Your task to perform on an android device: turn off wifi Image 0: 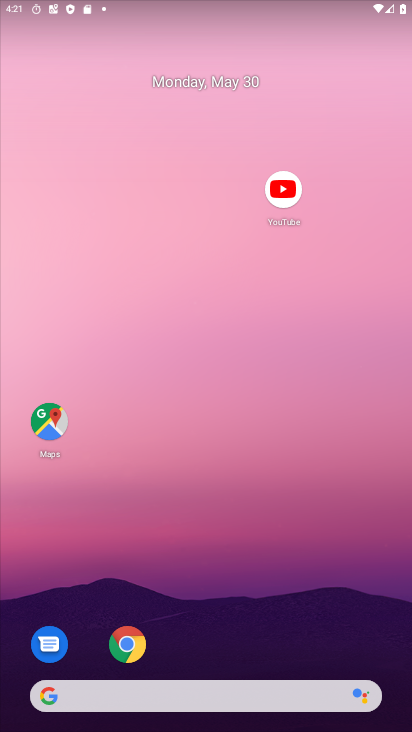
Step 0: drag from (280, 10) to (258, 623)
Your task to perform on an android device: turn off wifi Image 1: 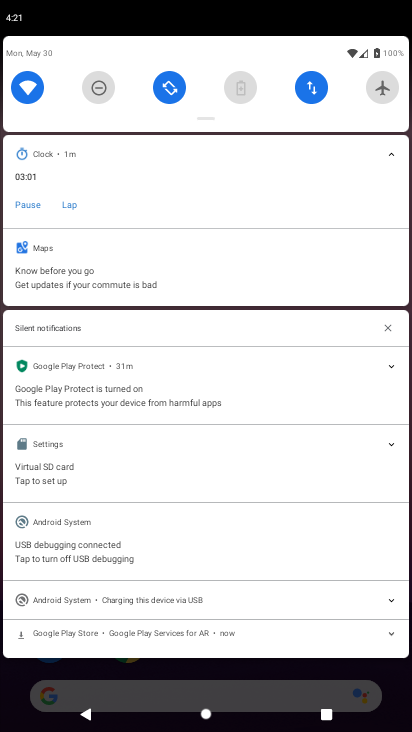
Step 1: click (36, 91)
Your task to perform on an android device: turn off wifi Image 2: 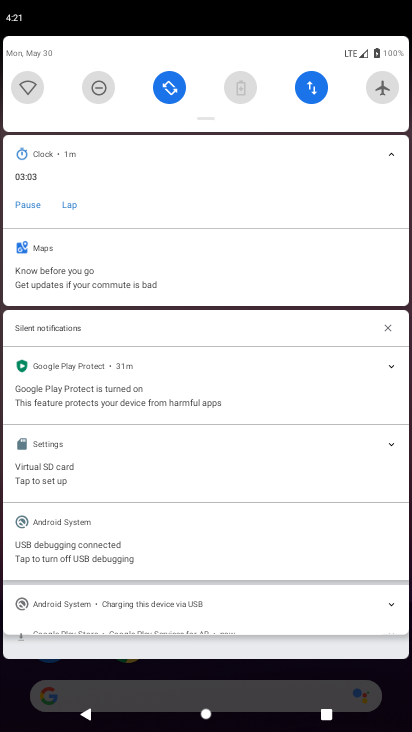
Step 2: task complete